Your task to perform on an android device: toggle translation in the chrome app Image 0: 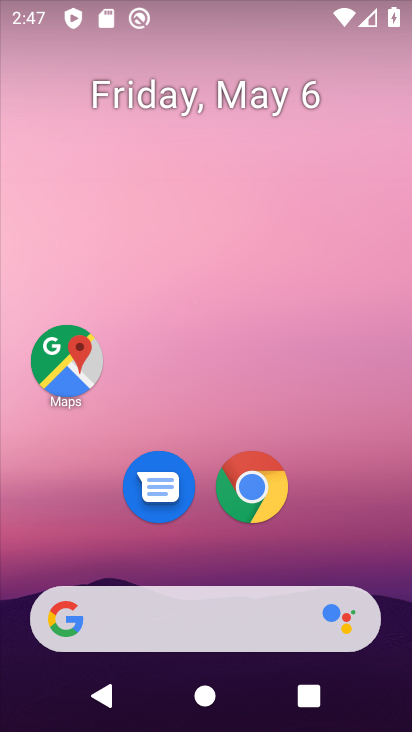
Step 0: drag from (374, 532) to (379, 246)
Your task to perform on an android device: toggle translation in the chrome app Image 1: 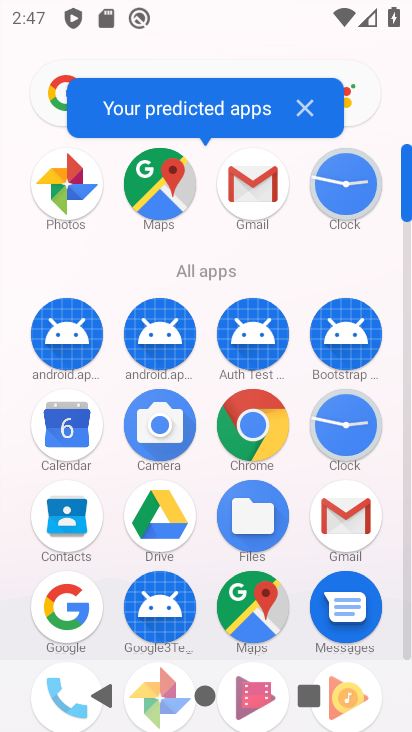
Step 1: drag from (299, 550) to (299, 212)
Your task to perform on an android device: toggle translation in the chrome app Image 2: 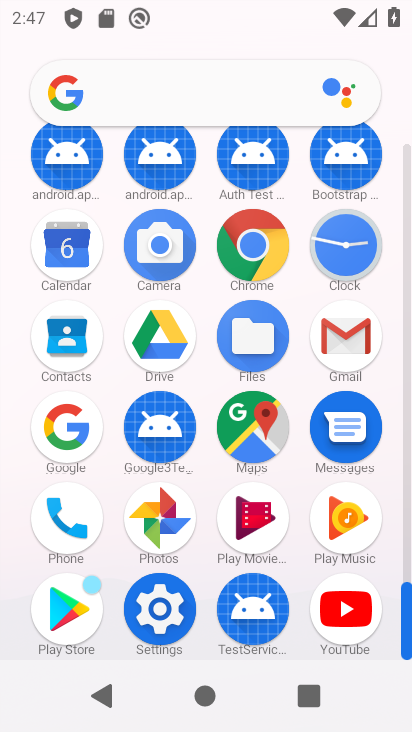
Step 2: click (255, 262)
Your task to perform on an android device: toggle translation in the chrome app Image 3: 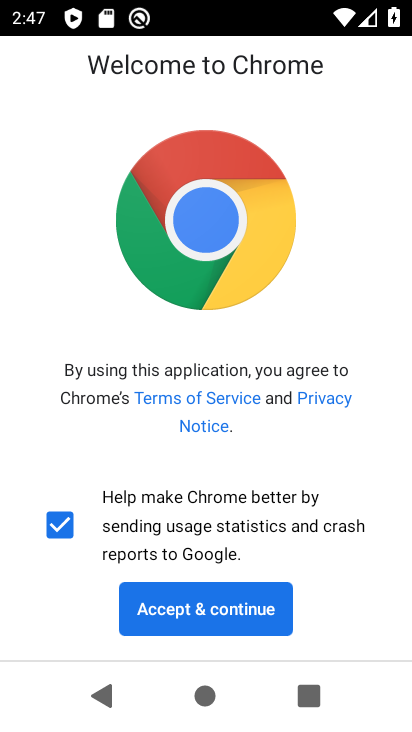
Step 3: click (224, 620)
Your task to perform on an android device: toggle translation in the chrome app Image 4: 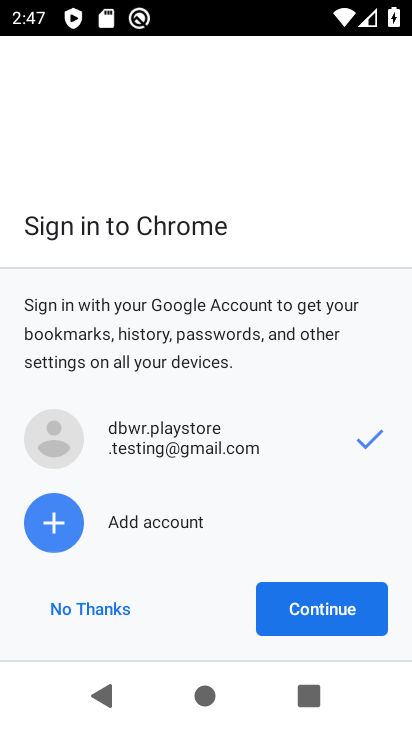
Step 4: click (332, 605)
Your task to perform on an android device: toggle translation in the chrome app Image 5: 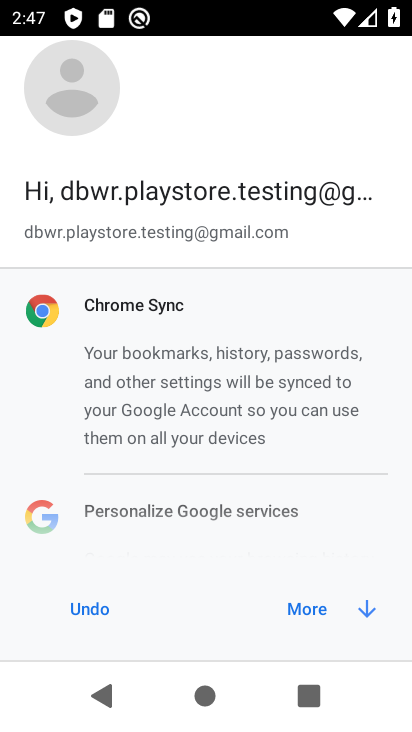
Step 5: click (332, 608)
Your task to perform on an android device: toggle translation in the chrome app Image 6: 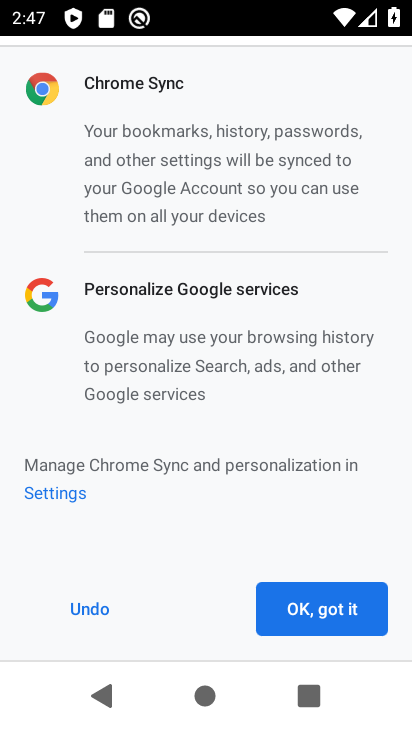
Step 6: click (332, 608)
Your task to perform on an android device: toggle translation in the chrome app Image 7: 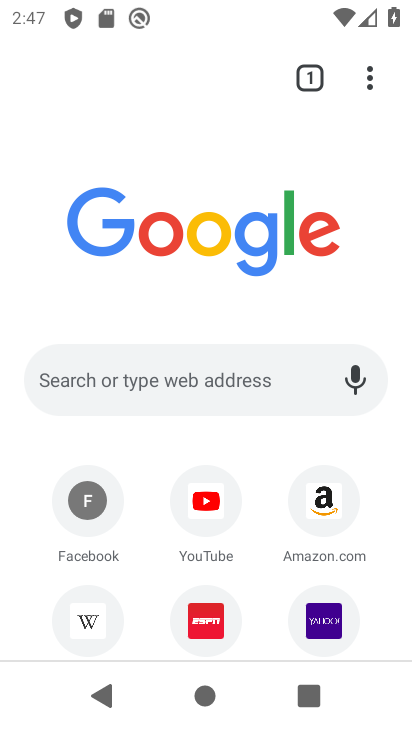
Step 7: drag from (373, 90) to (149, 559)
Your task to perform on an android device: toggle translation in the chrome app Image 8: 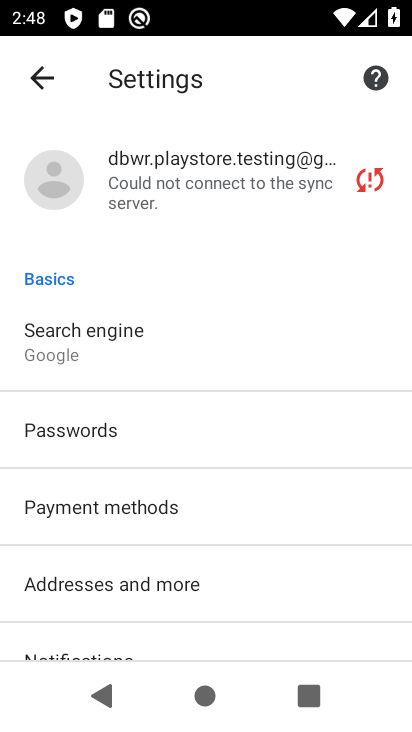
Step 8: drag from (178, 627) to (230, 367)
Your task to perform on an android device: toggle translation in the chrome app Image 9: 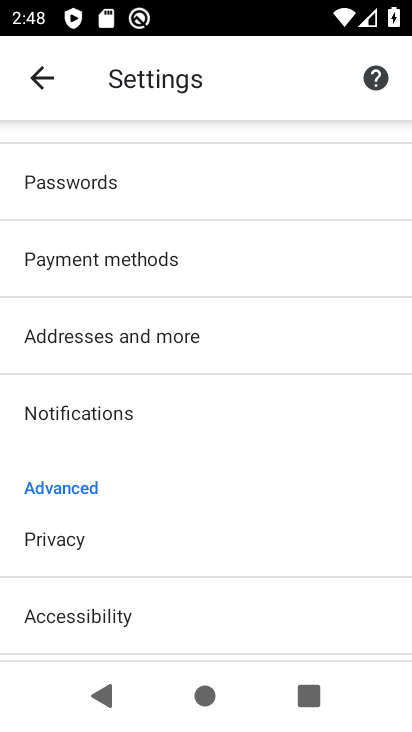
Step 9: drag from (177, 594) to (224, 302)
Your task to perform on an android device: toggle translation in the chrome app Image 10: 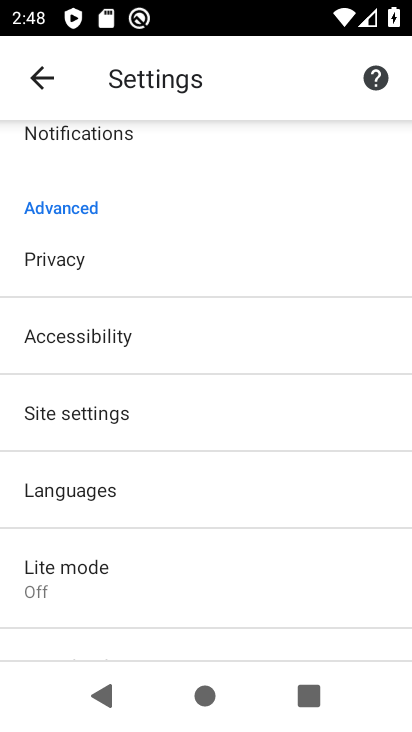
Step 10: drag from (166, 601) to (258, 277)
Your task to perform on an android device: toggle translation in the chrome app Image 11: 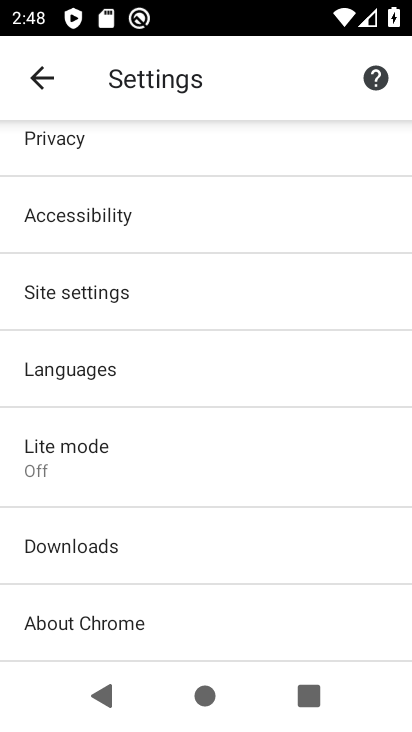
Step 11: click (83, 364)
Your task to perform on an android device: toggle translation in the chrome app Image 12: 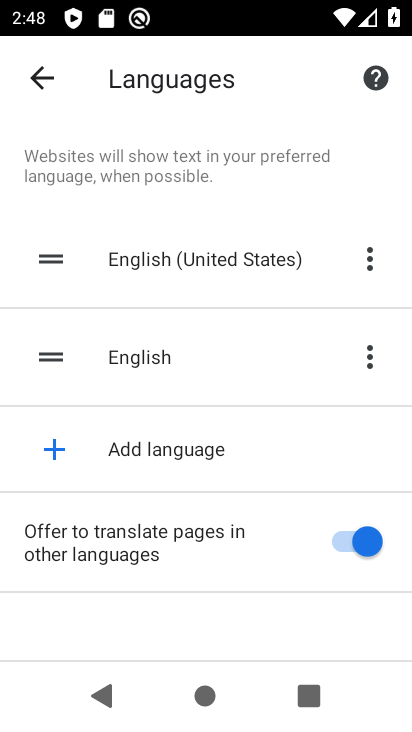
Step 12: click (337, 545)
Your task to perform on an android device: toggle translation in the chrome app Image 13: 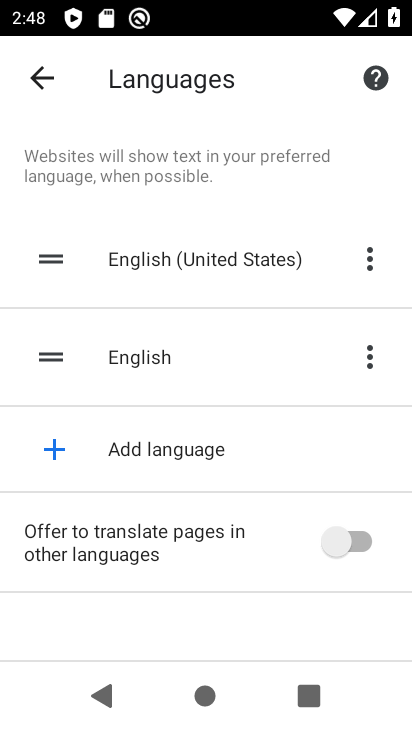
Step 13: task complete